Your task to perform on an android device: Go to display settings Image 0: 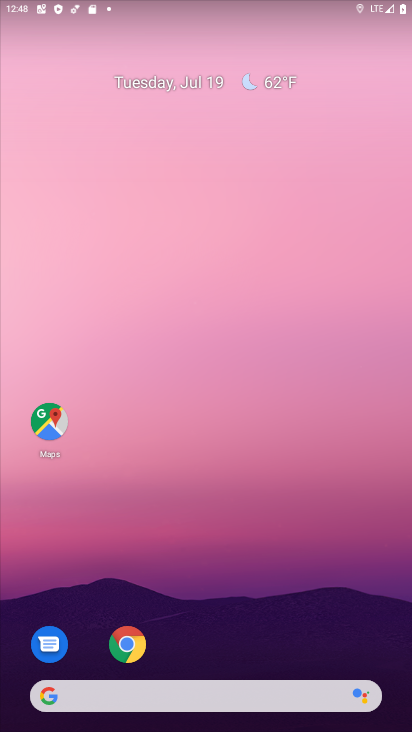
Step 0: drag from (205, 617) to (102, 32)
Your task to perform on an android device: Go to display settings Image 1: 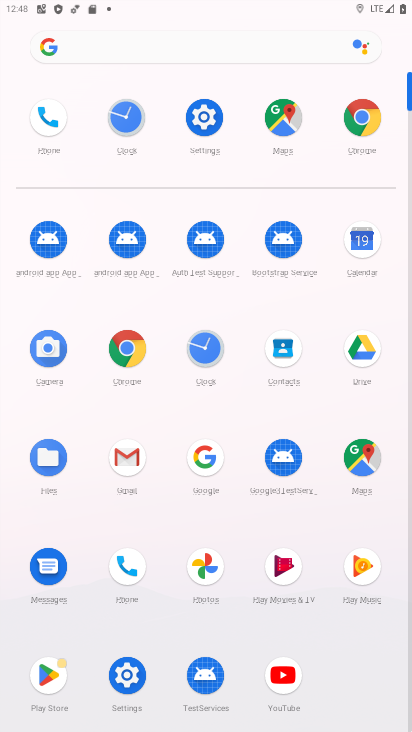
Step 1: click (200, 119)
Your task to perform on an android device: Go to display settings Image 2: 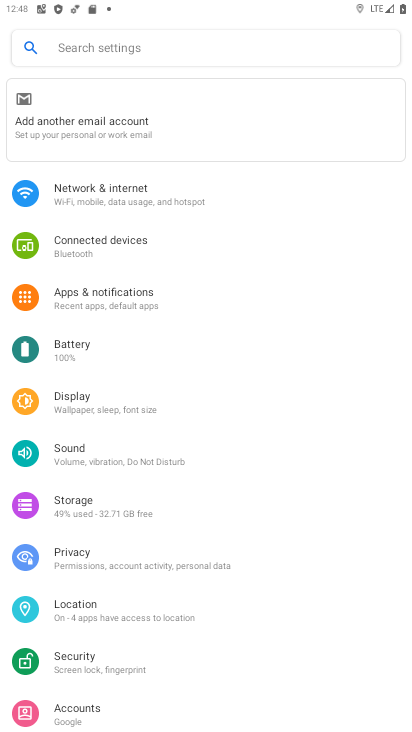
Step 2: click (76, 395)
Your task to perform on an android device: Go to display settings Image 3: 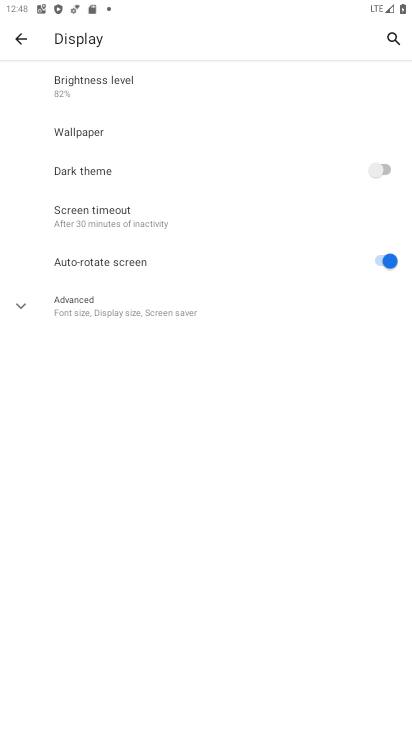
Step 3: task complete